Your task to perform on an android device: Open Yahoo.com Image 0: 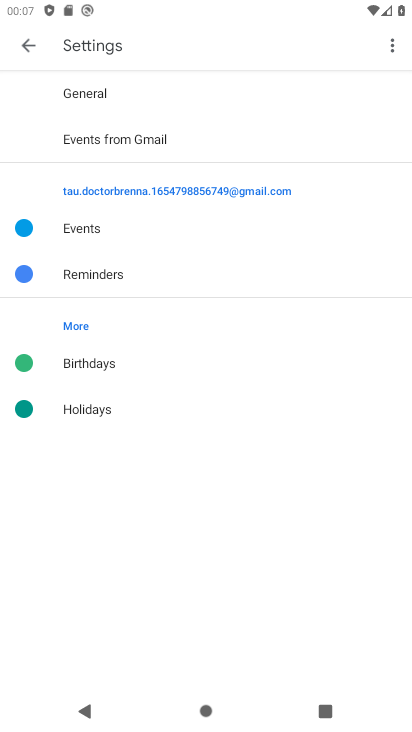
Step 0: press back button
Your task to perform on an android device: Open Yahoo.com Image 1: 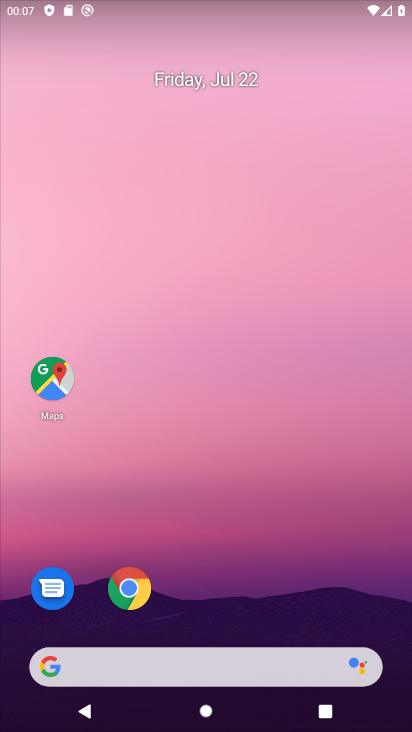
Step 1: click (133, 578)
Your task to perform on an android device: Open Yahoo.com Image 2: 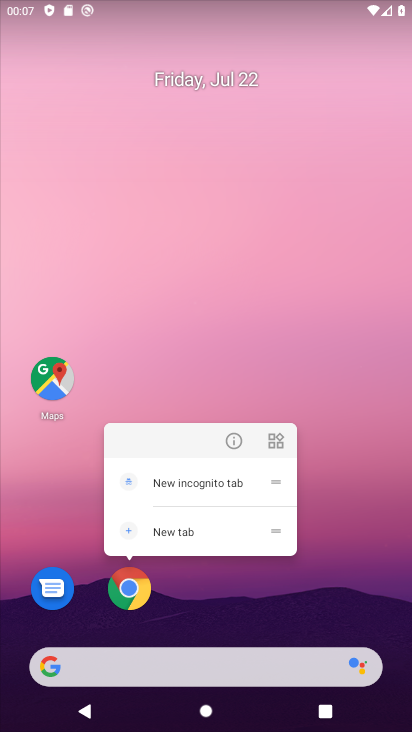
Step 2: click (127, 585)
Your task to perform on an android device: Open Yahoo.com Image 3: 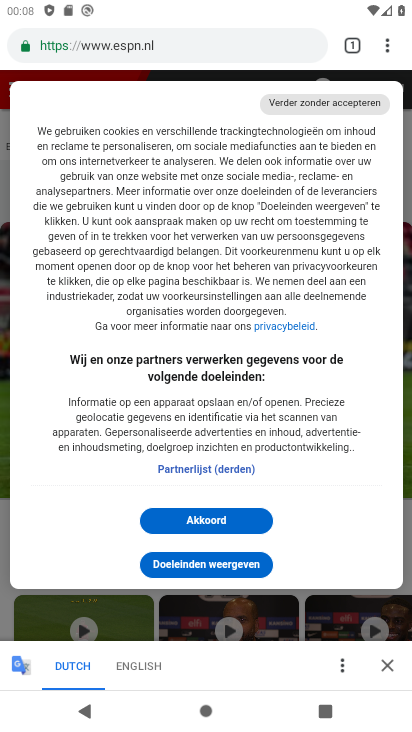
Step 3: click (355, 38)
Your task to perform on an android device: Open Yahoo.com Image 4: 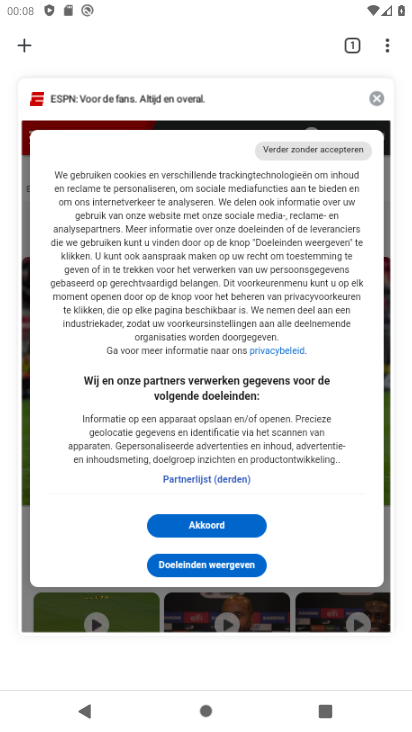
Step 4: click (29, 43)
Your task to perform on an android device: Open Yahoo.com Image 5: 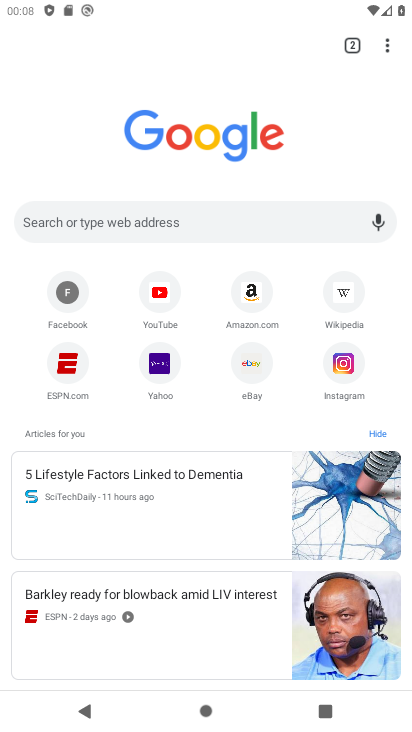
Step 5: click (155, 368)
Your task to perform on an android device: Open Yahoo.com Image 6: 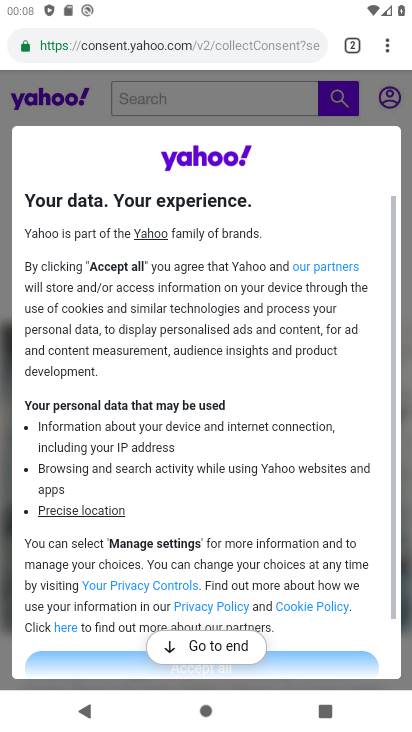
Step 6: task complete